Your task to perform on an android device: refresh tabs in the chrome app Image 0: 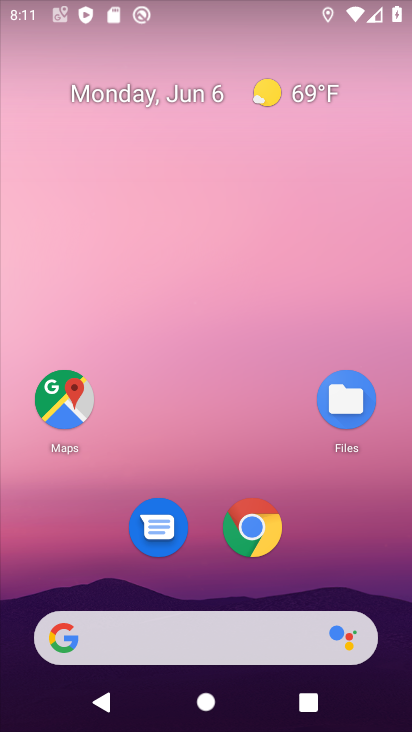
Step 0: click (261, 526)
Your task to perform on an android device: refresh tabs in the chrome app Image 1: 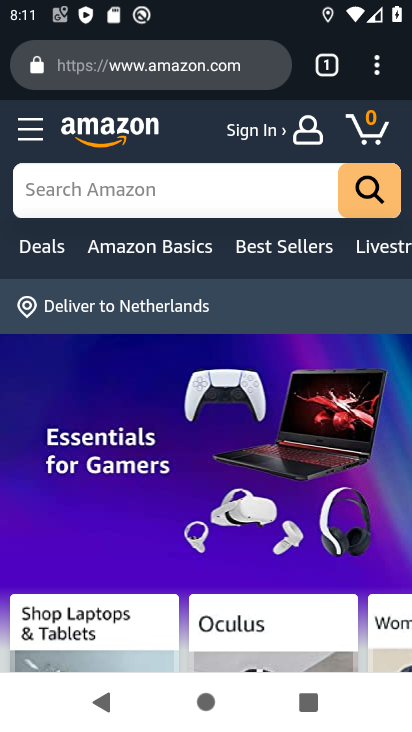
Step 1: click (368, 82)
Your task to perform on an android device: refresh tabs in the chrome app Image 2: 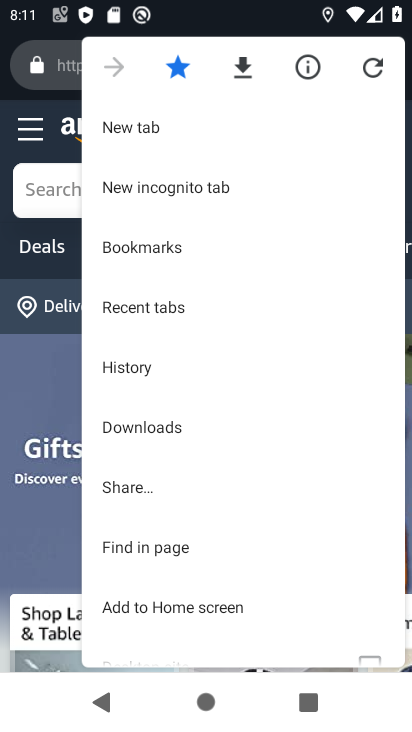
Step 2: click (373, 72)
Your task to perform on an android device: refresh tabs in the chrome app Image 3: 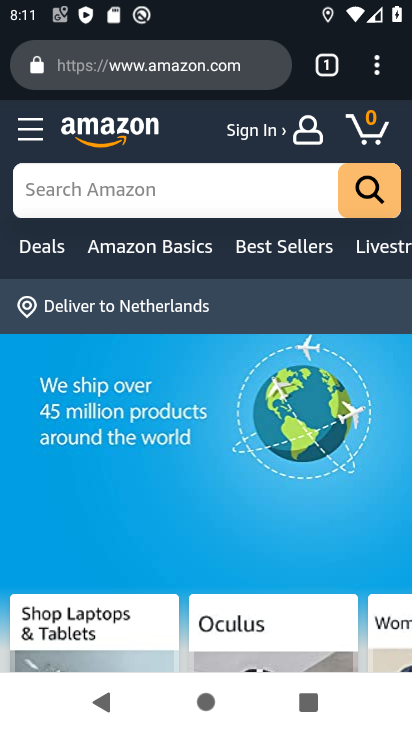
Step 3: task complete